Your task to perform on an android device: Add logitech g pro to the cart on ebay.com, then select checkout. Image 0: 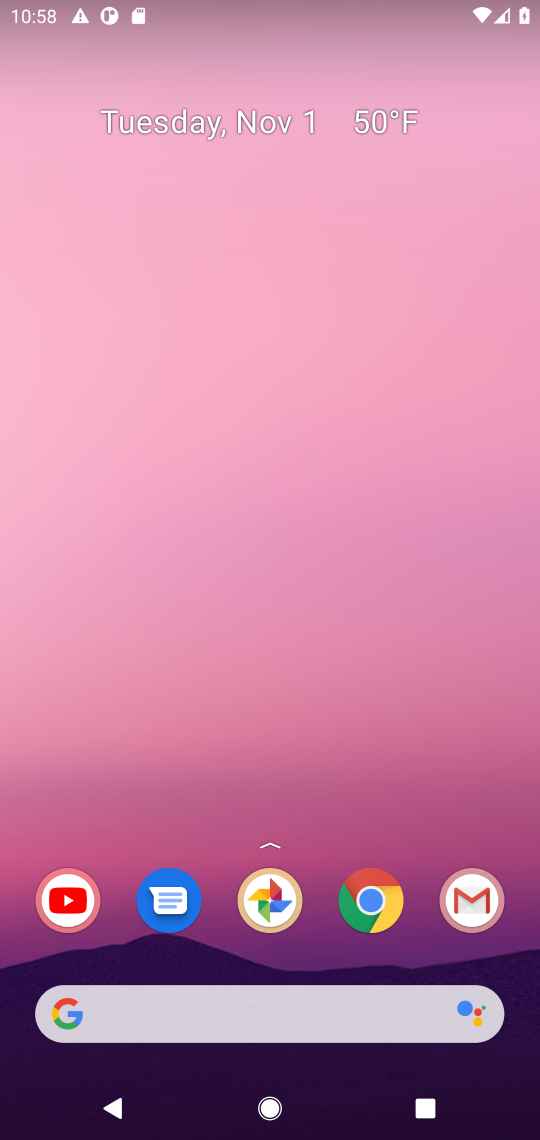
Step 0: click (377, 892)
Your task to perform on an android device: Add logitech g pro to the cart on ebay.com, then select checkout. Image 1: 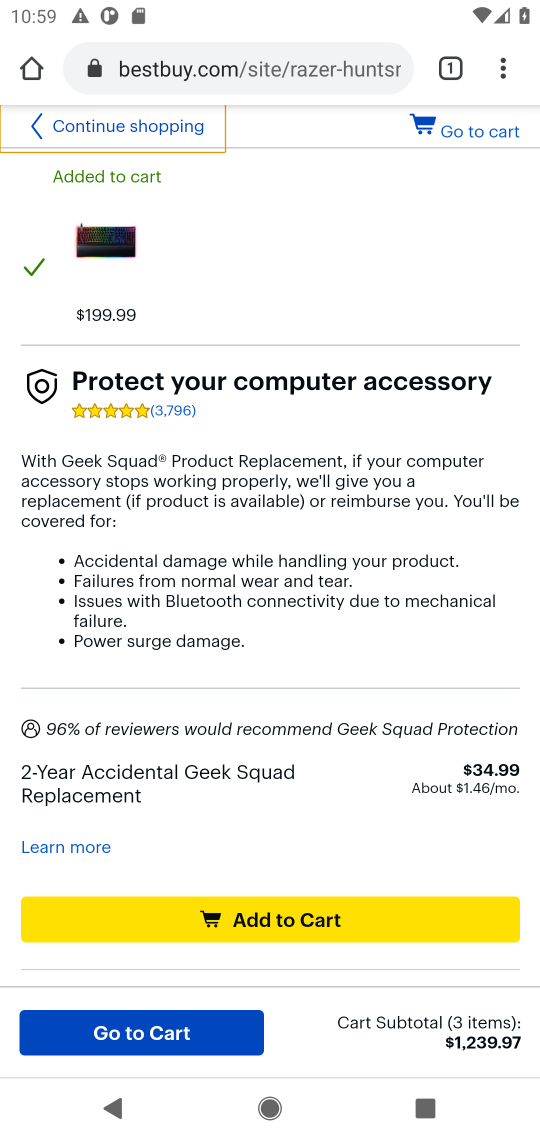
Step 1: click (191, 64)
Your task to perform on an android device: Add logitech g pro to the cart on ebay.com, then select checkout. Image 2: 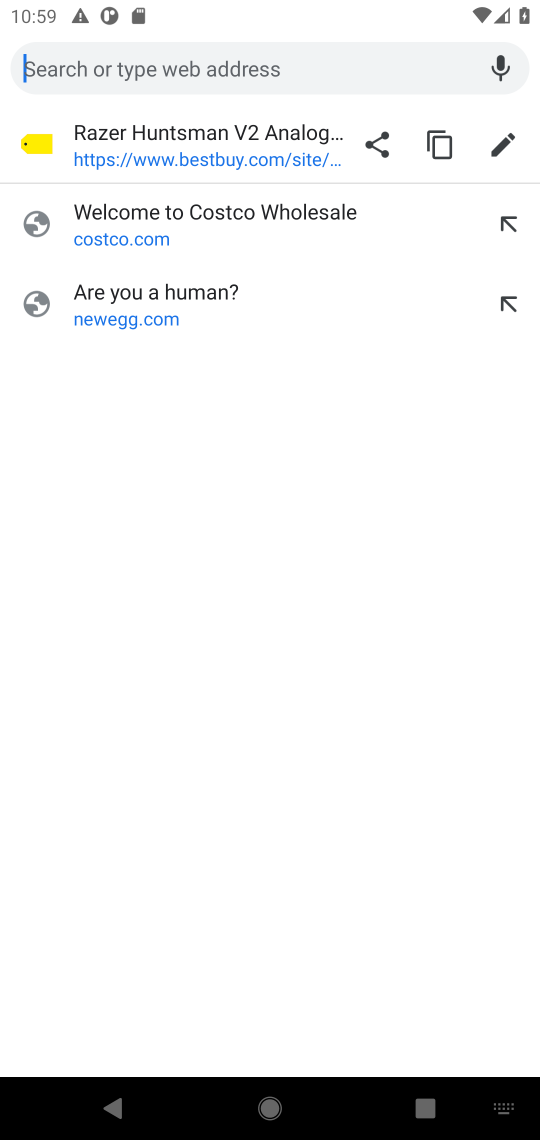
Step 2: type "ebay"
Your task to perform on an android device: Add logitech g pro to the cart on ebay.com, then select checkout. Image 3: 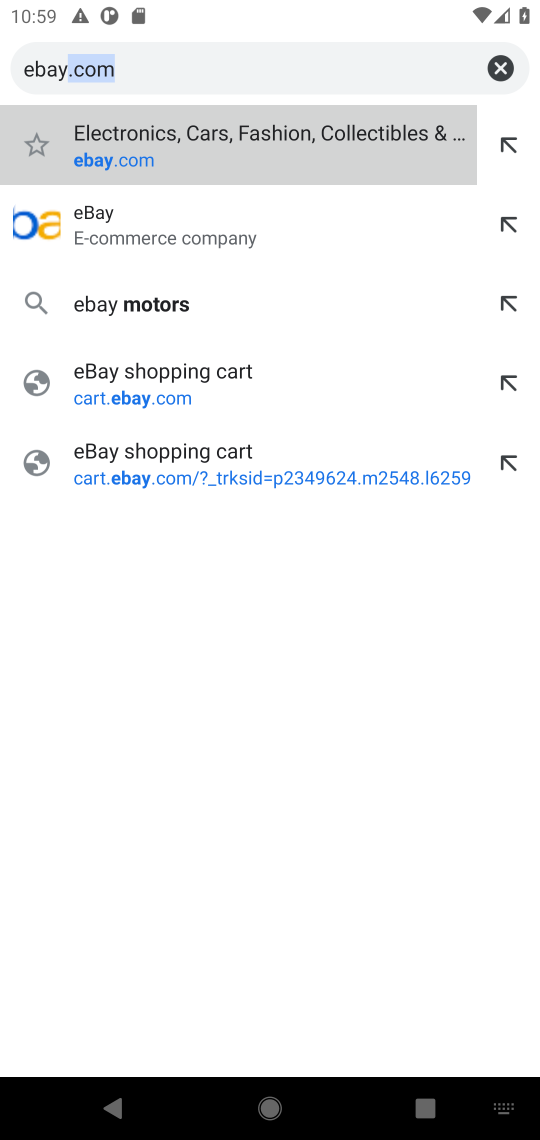
Step 3: click (146, 219)
Your task to perform on an android device: Add logitech g pro to the cart on ebay.com, then select checkout. Image 4: 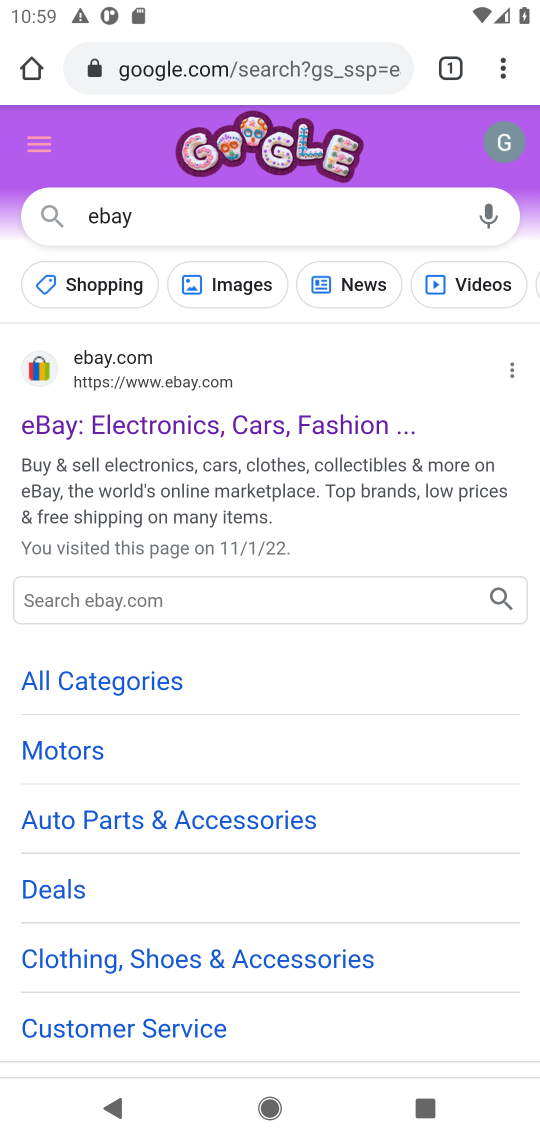
Step 4: click (160, 439)
Your task to perform on an android device: Add logitech g pro to the cart on ebay.com, then select checkout. Image 5: 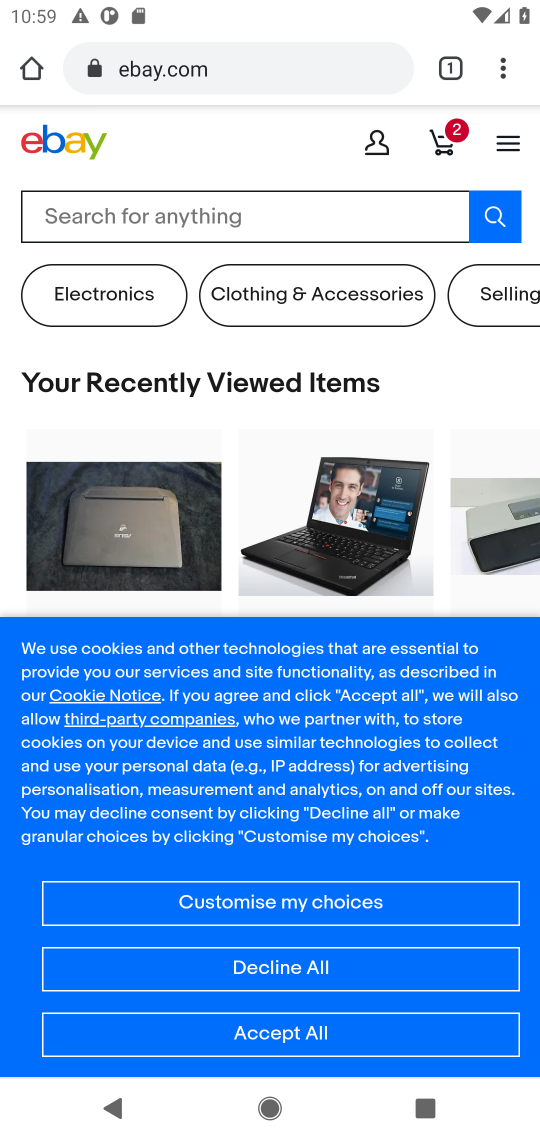
Step 5: click (199, 209)
Your task to perform on an android device: Add logitech g pro to the cart on ebay.com, then select checkout. Image 6: 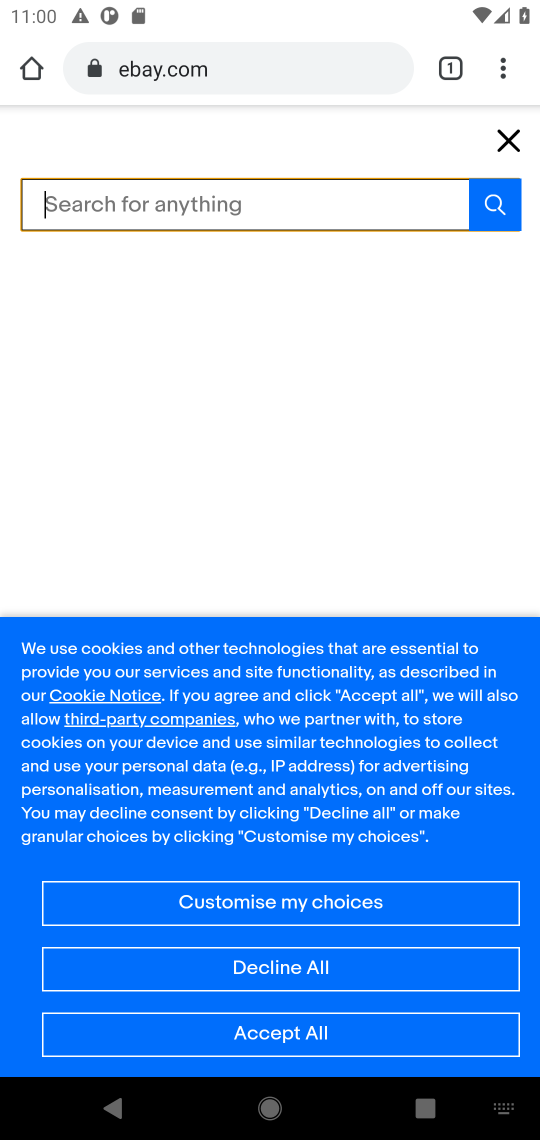
Step 6: type "logitech g pro"
Your task to perform on an android device: Add logitech g pro to the cart on ebay.com, then select checkout. Image 7: 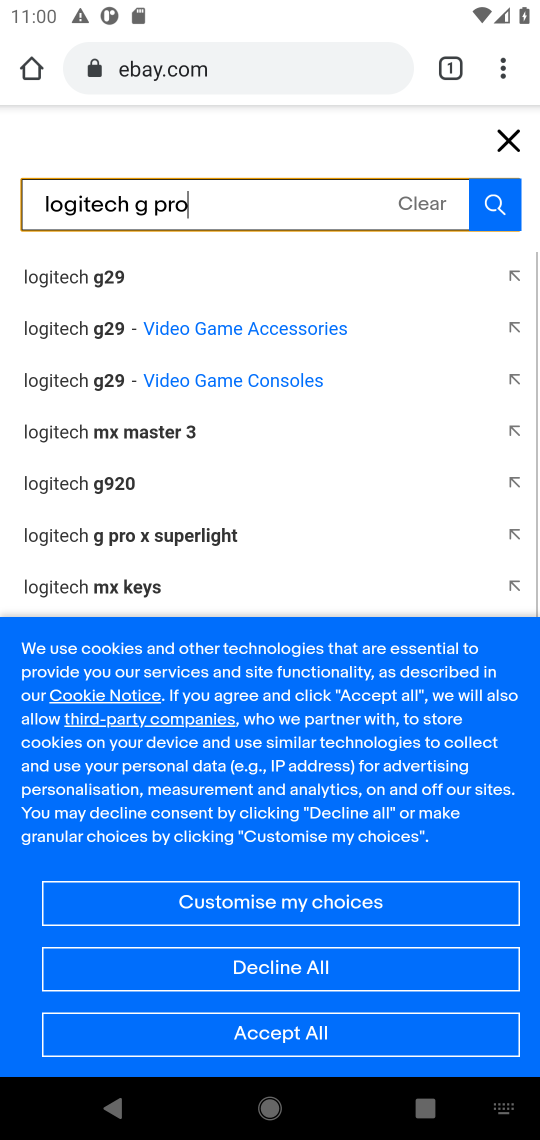
Step 7: type ""
Your task to perform on an android device: Add logitech g pro to the cart on ebay.com, then select checkout. Image 8: 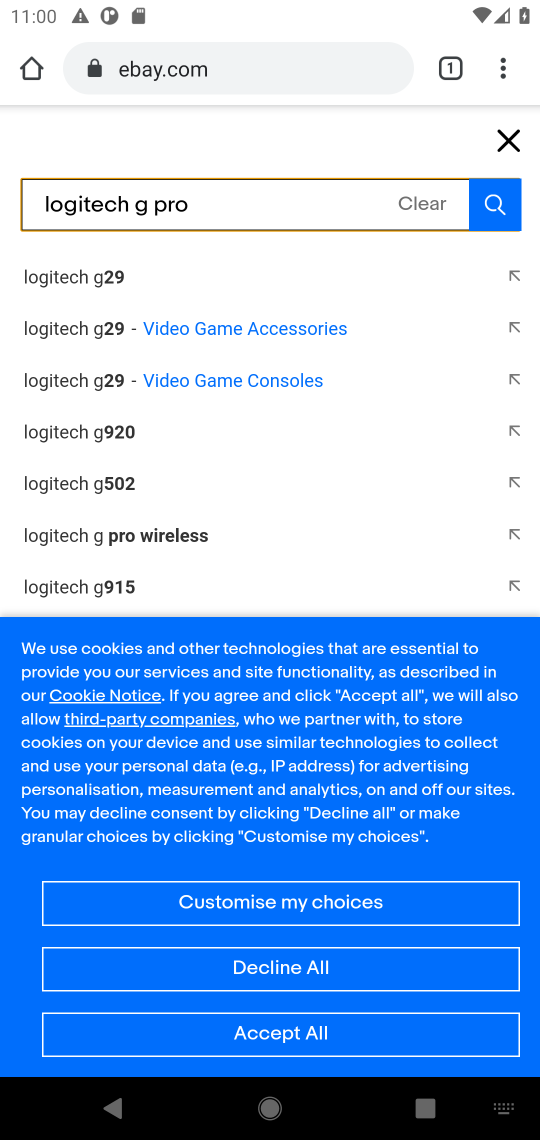
Step 8: click (507, 202)
Your task to perform on an android device: Add logitech g pro to the cart on ebay.com, then select checkout. Image 9: 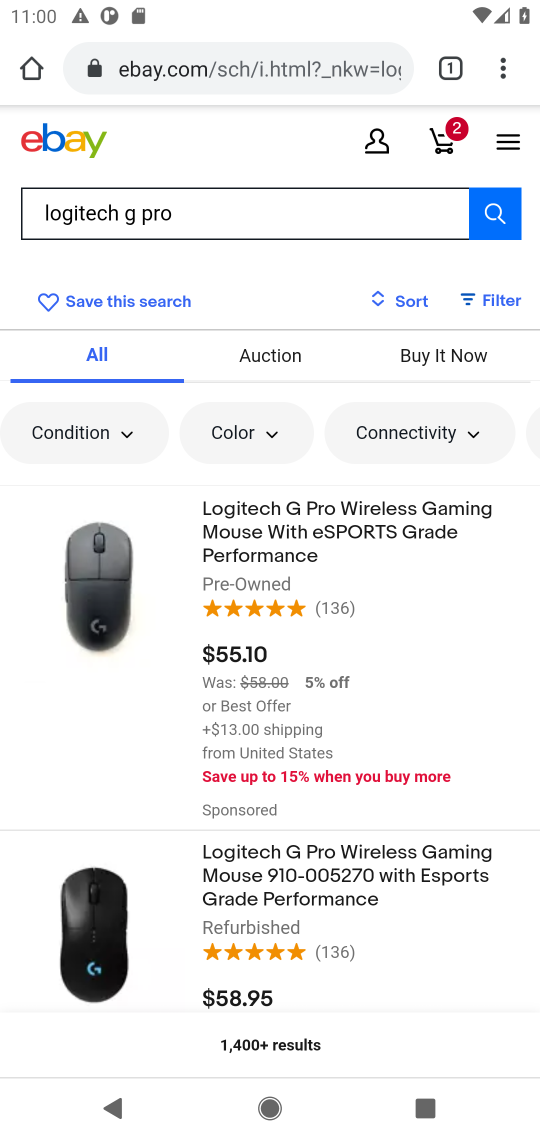
Step 9: click (310, 550)
Your task to perform on an android device: Add logitech g pro to the cart on ebay.com, then select checkout. Image 10: 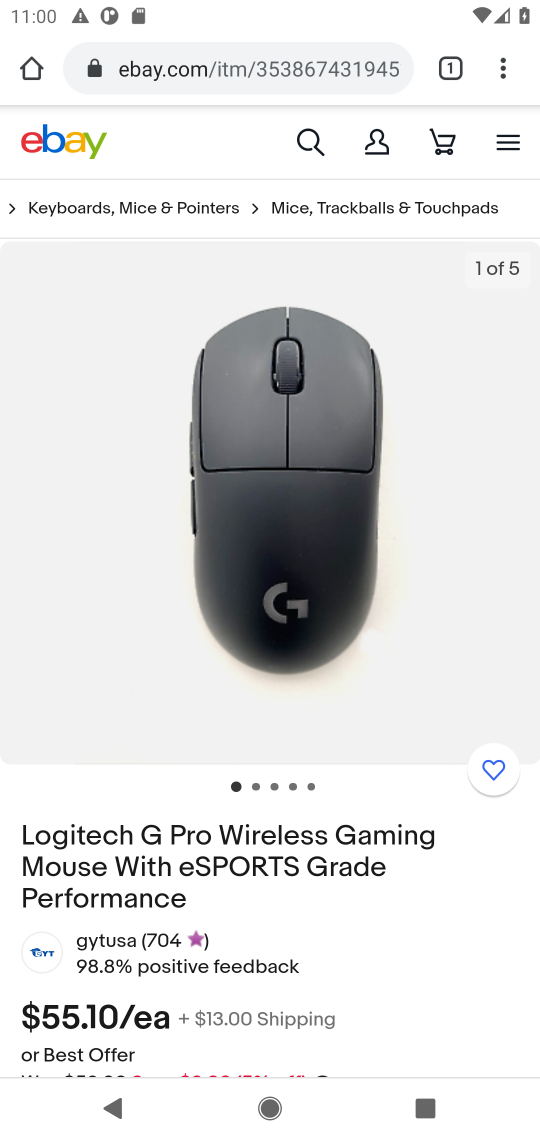
Step 10: drag from (303, 940) to (380, 345)
Your task to perform on an android device: Add logitech g pro to the cart on ebay.com, then select checkout. Image 11: 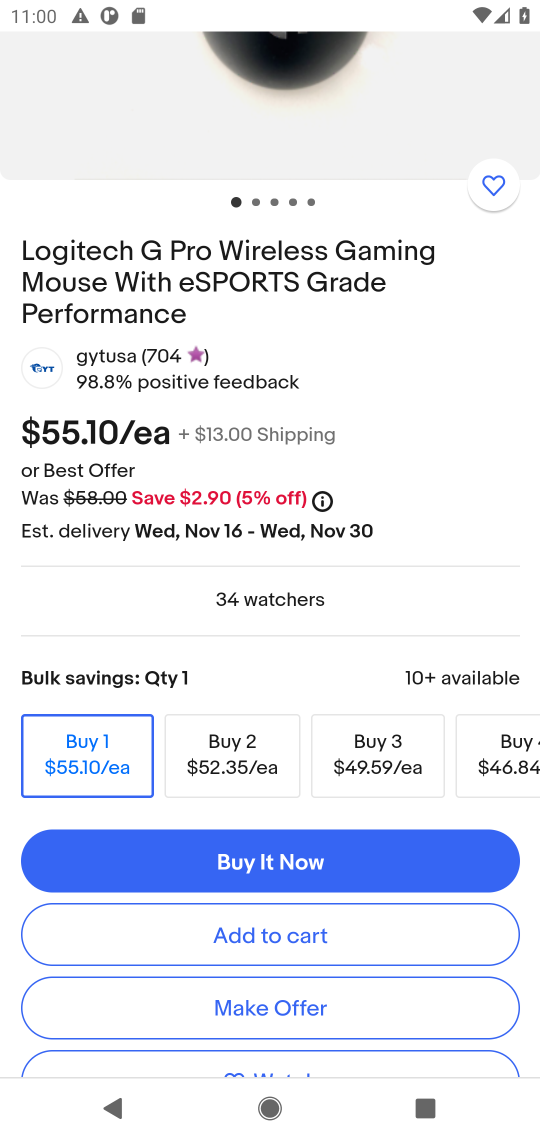
Step 11: click (288, 937)
Your task to perform on an android device: Add logitech g pro to the cart on ebay.com, then select checkout. Image 12: 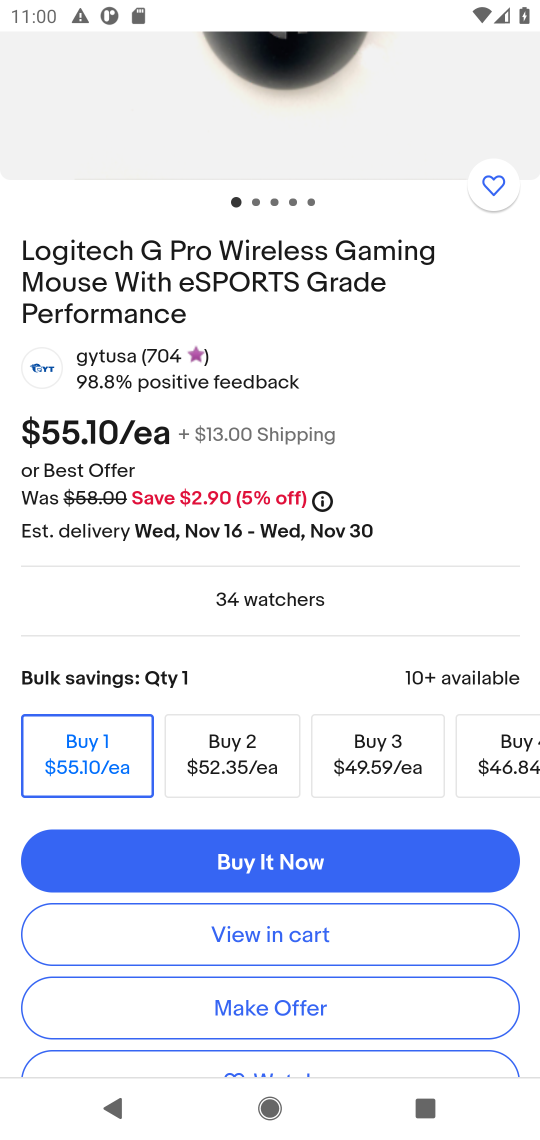
Step 12: click (288, 937)
Your task to perform on an android device: Add logitech g pro to the cart on ebay.com, then select checkout. Image 13: 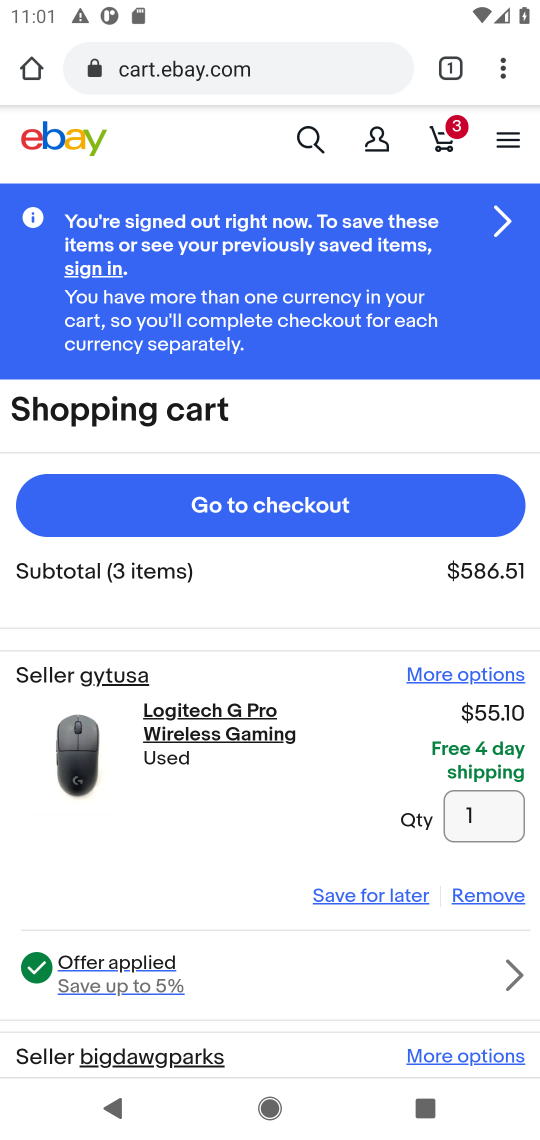
Step 13: click (346, 511)
Your task to perform on an android device: Add logitech g pro to the cart on ebay.com, then select checkout. Image 14: 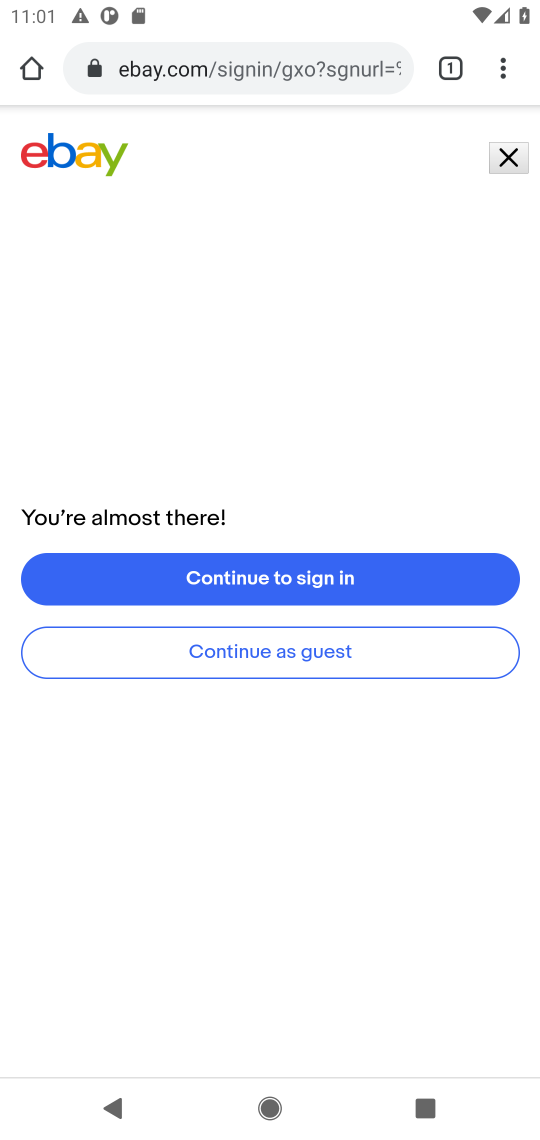
Step 14: task complete